Your task to perform on an android device: What's the weather today? Image 0: 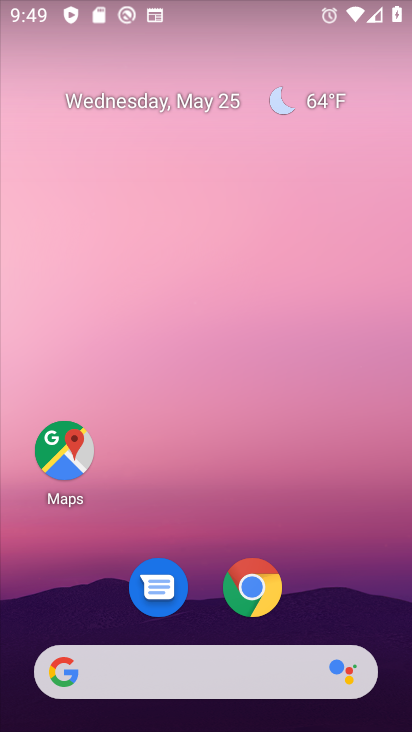
Step 0: drag from (88, 638) to (201, 130)
Your task to perform on an android device: What's the weather today? Image 1: 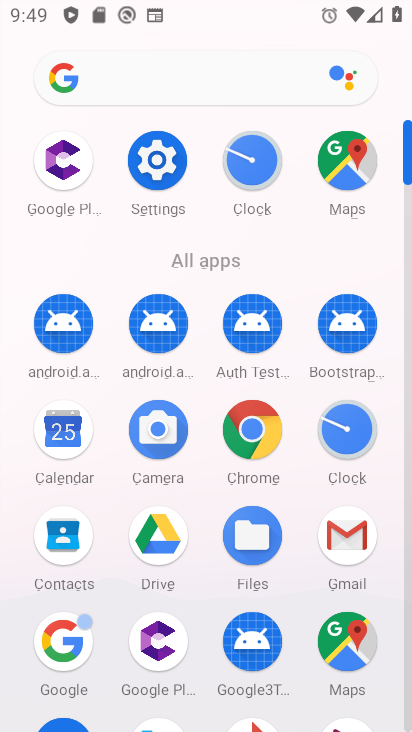
Step 1: drag from (212, 620) to (271, 411)
Your task to perform on an android device: What's the weather today? Image 2: 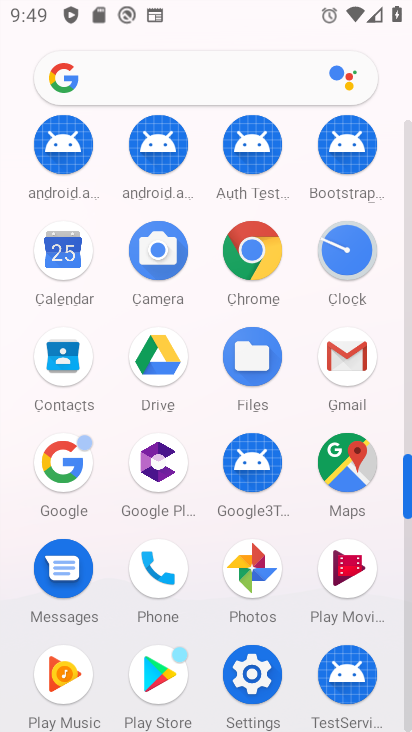
Step 2: click (52, 475)
Your task to perform on an android device: What's the weather today? Image 3: 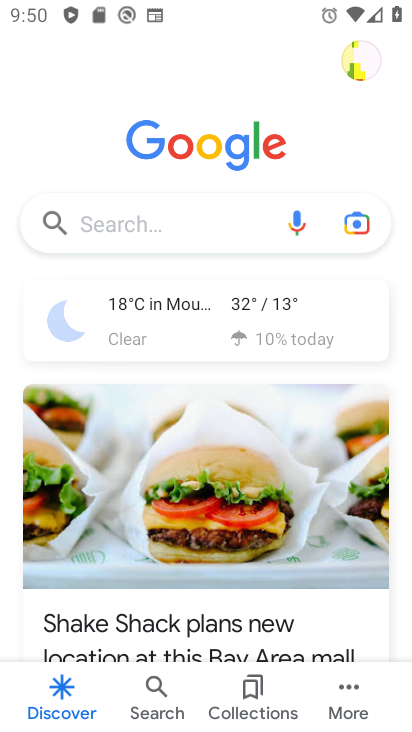
Step 3: click (156, 214)
Your task to perform on an android device: What's the weather today? Image 4: 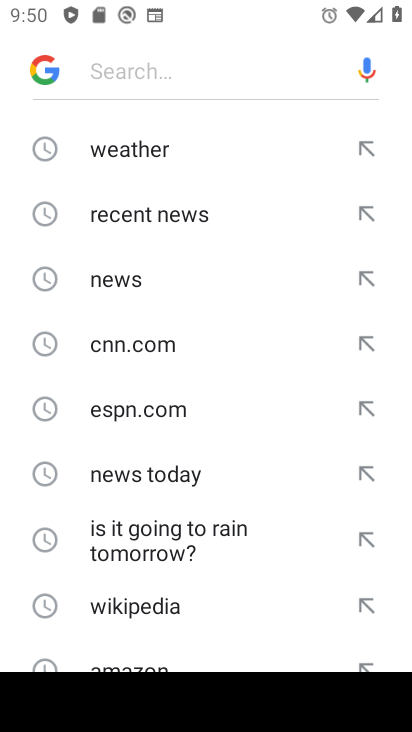
Step 4: click (158, 136)
Your task to perform on an android device: What's the weather today? Image 5: 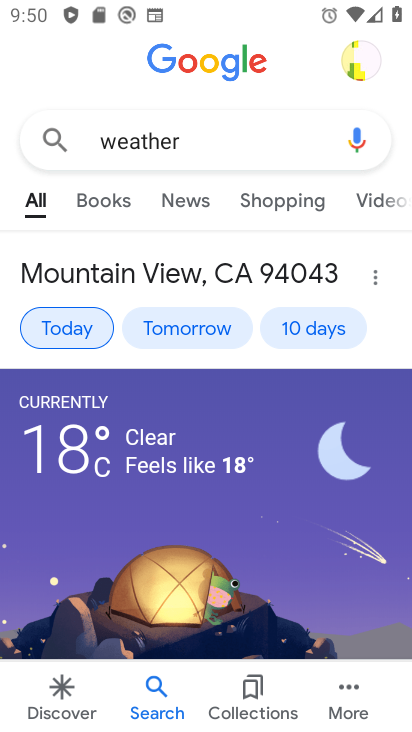
Step 5: task complete